Your task to perform on an android device: make emails show in primary in the gmail app Image 0: 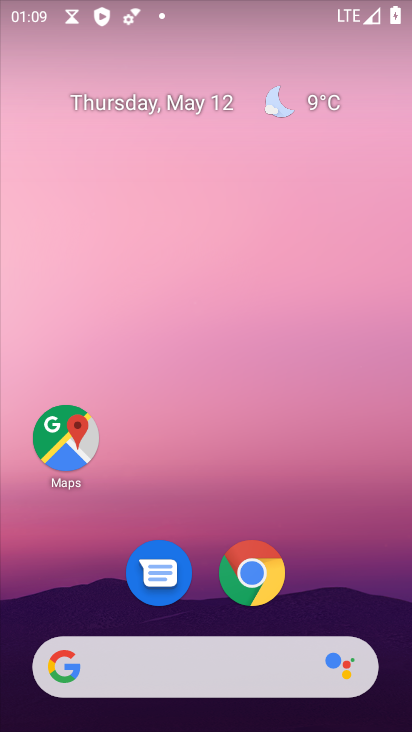
Step 0: drag from (319, 606) to (287, 83)
Your task to perform on an android device: make emails show in primary in the gmail app Image 1: 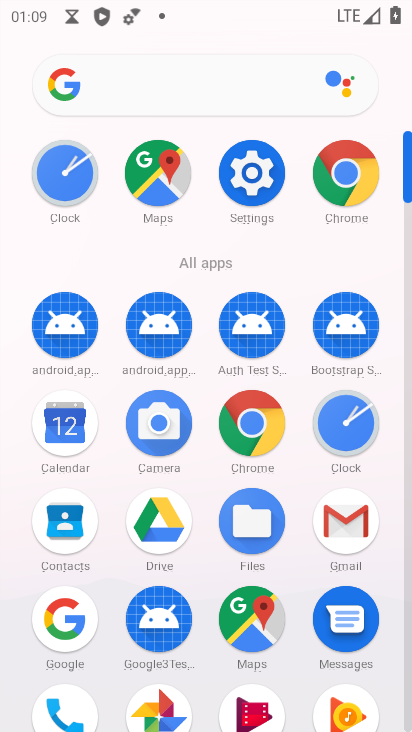
Step 1: click (348, 505)
Your task to perform on an android device: make emails show in primary in the gmail app Image 2: 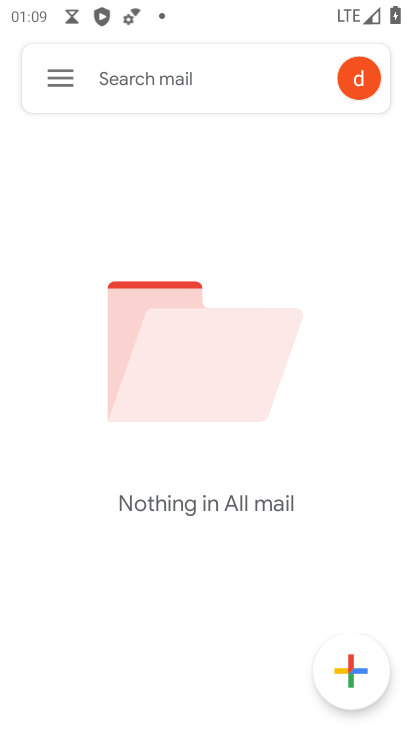
Step 2: click (49, 91)
Your task to perform on an android device: make emails show in primary in the gmail app Image 3: 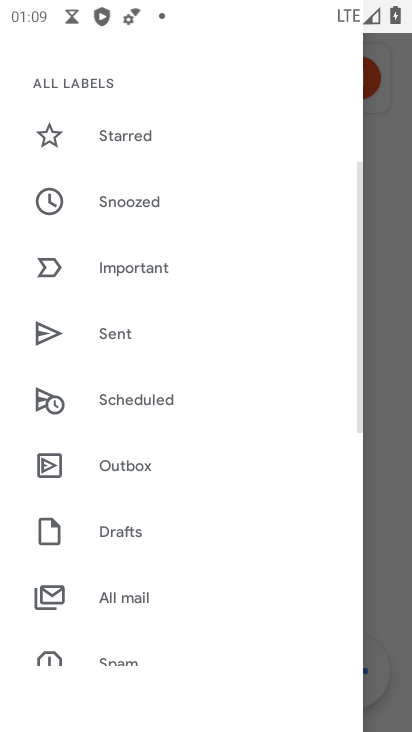
Step 3: drag from (162, 581) to (216, 142)
Your task to perform on an android device: make emails show in primary in the gmail app Image 4: 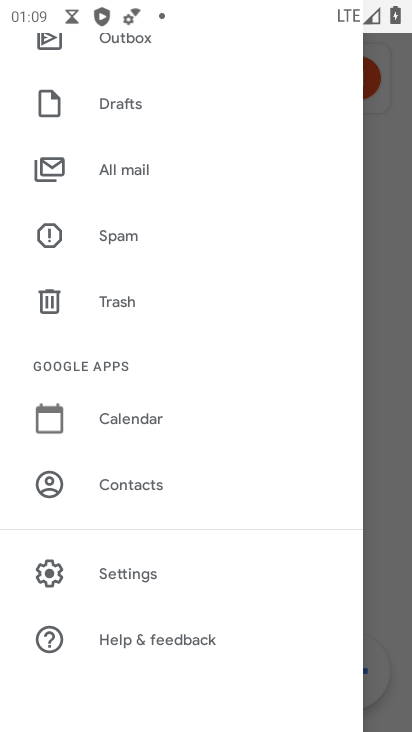
Step 4: click (134, 551)
Your task to perform on an android device: make emails show in primary in the gmail app Image 5: 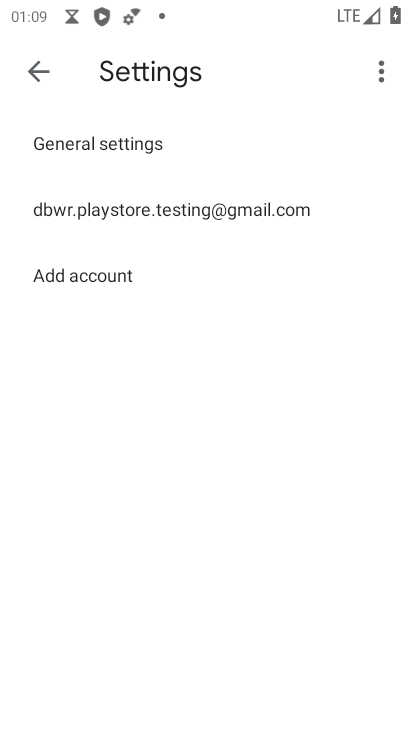
Step 5: click (287, 221)
Your task to perform on an android device: make emails show in primary in the gmail app Image 6: 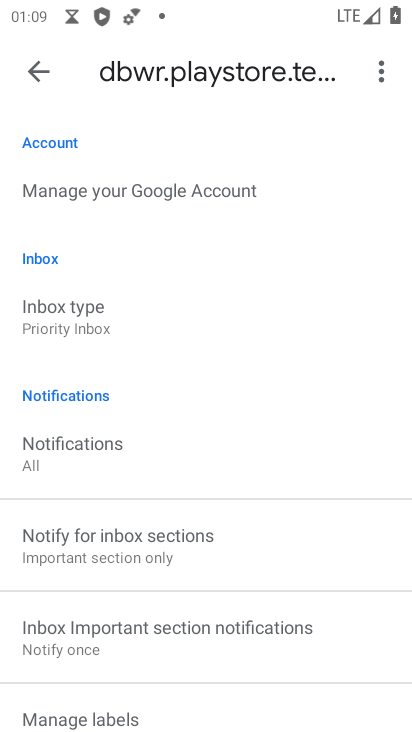
Step 6: click (110, 319)
Your task to perform on an android device: make emails show in primary in the gmail app Image 7: 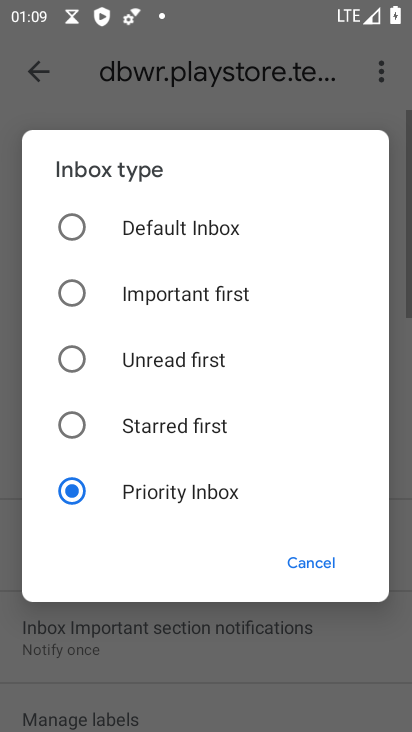
Step 7: click (156, 227)
Your task to perform on an android device: make emails show in primary in the gmail app Image 8: 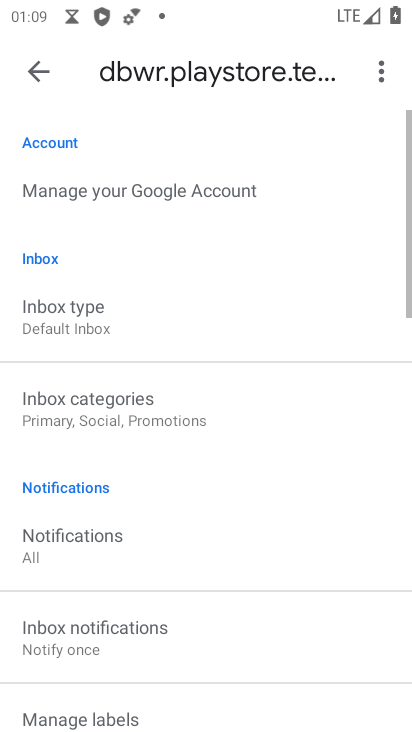
Step 8: task complete